Your task to perform on an android device: Do I have any events today? Image 0: 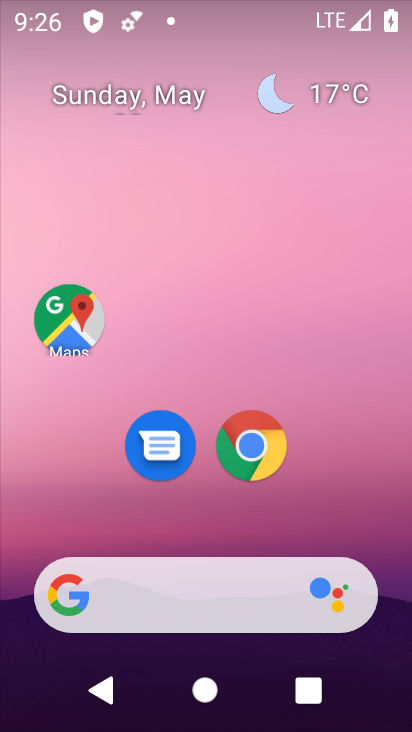
Step 0: drag from (180, 560) to (178, 93)
Your task to perform on an android device: Do I have any events today? Image 1: 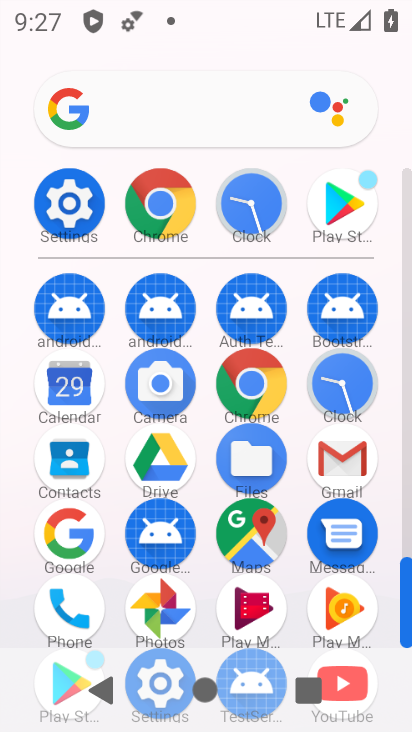
Step 1: click (54, 386)
Your task to perform on an android device: Do I have any events today? Image 2: 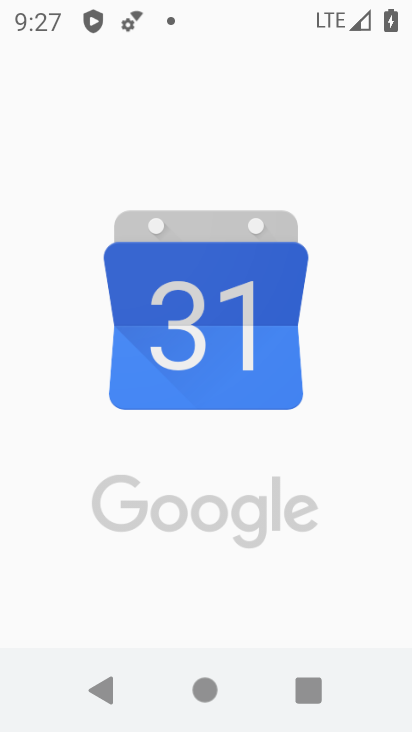
Step 2: drag from (267, 579) to (291, 321)
Your task to perform on an android device: Do I have any events today? Image 3: 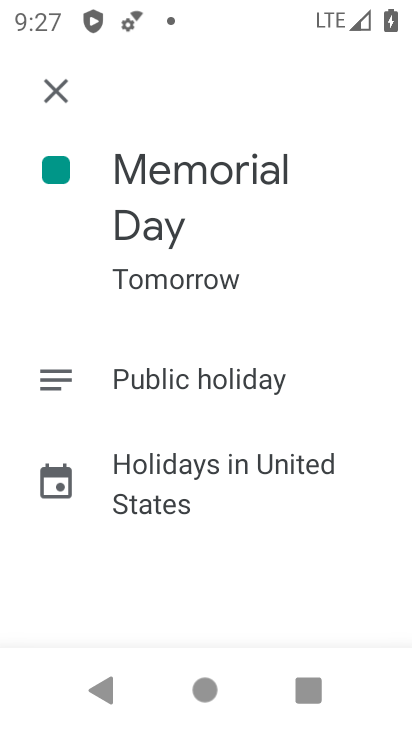
Step 3: click (62, 88)
Your task to perform on an android device: Do I have any events today? Image 4: 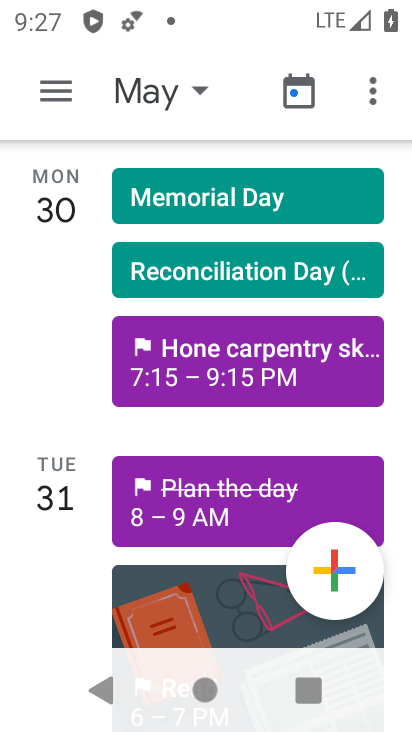
Step 4: drag from (260, 420) to (297, 212)
Your task to perform on an android device: Do I have any events today? Image 5: 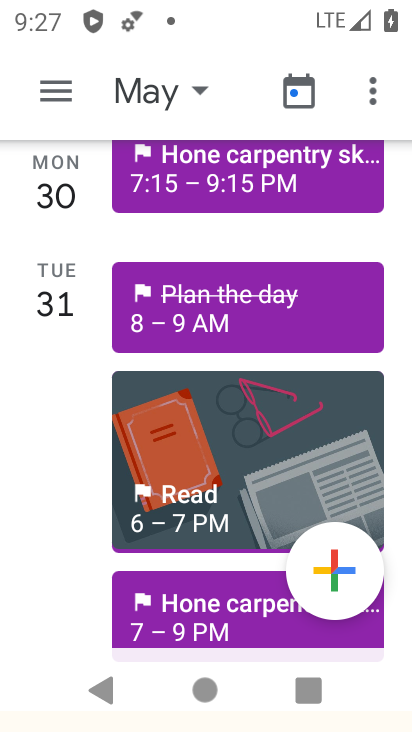
Step 5: drag from (245, 285) to (334, 653)
Your task to perform on an android device: Do I have any events today? Image 6: 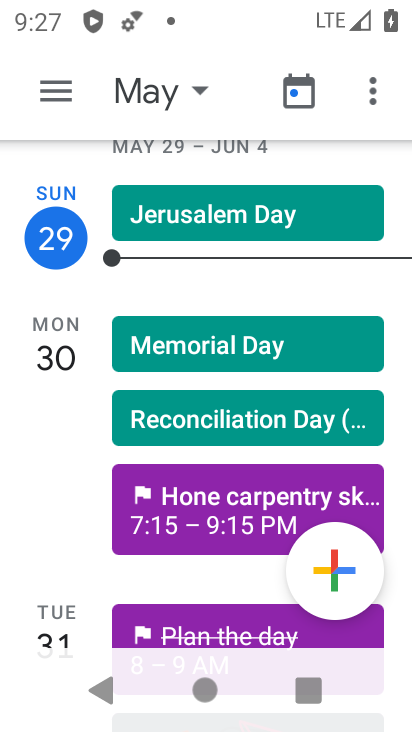
Step 6: click (164, 98)
Your task to perform on an android device: Do I have any events today? Image 7: 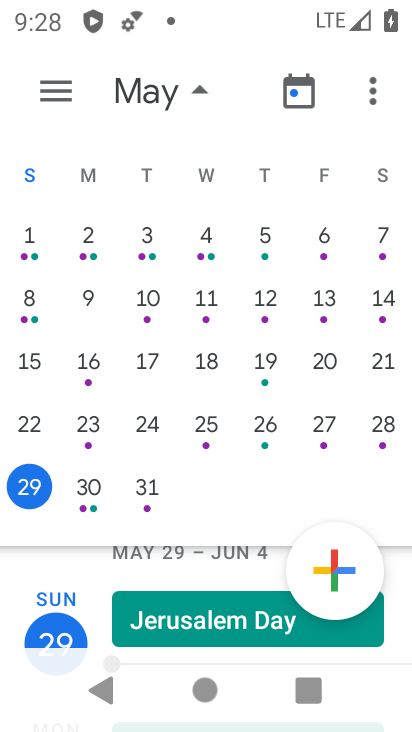
Step 7: drag from (241, 478) to (258, 60)
Your task to perform on an android device: Do I have any events today? Image 8: 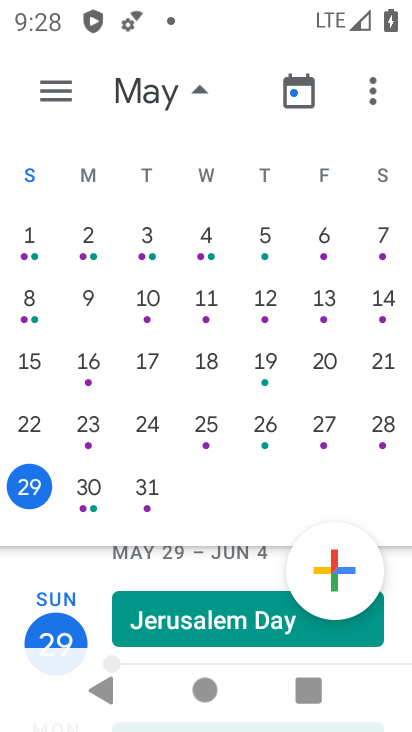
Step 8: click (40, 490)
Your task to perform on an android device: Do I have any events today? Image 9: 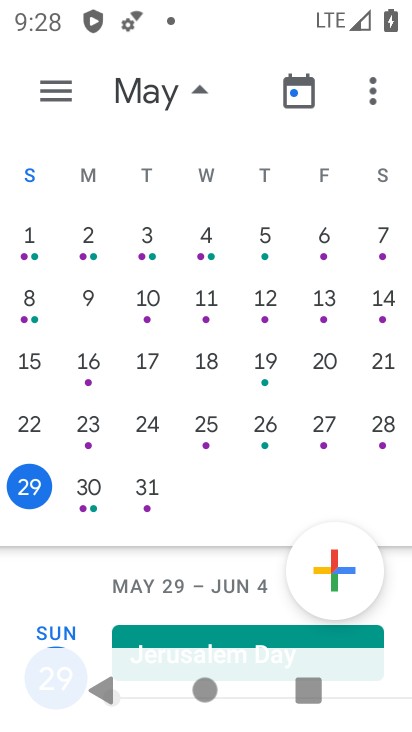
Step 9: task complete